Your task to perform on an android device: check google app version Image 0: 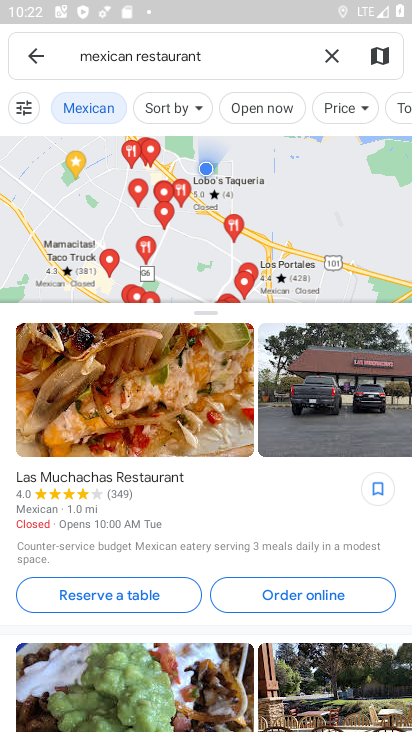
Step 0: click (41, 53)
Your task to perform on an android device: check google app version Image 1: 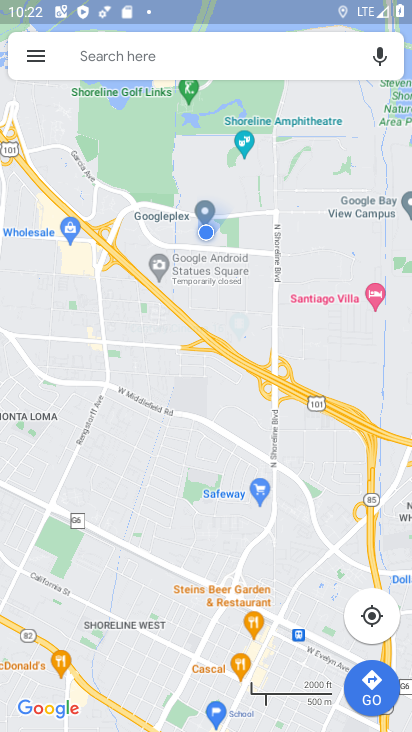
Step 1: press home button
Your task to perform on an android device: check google app version Image 2: 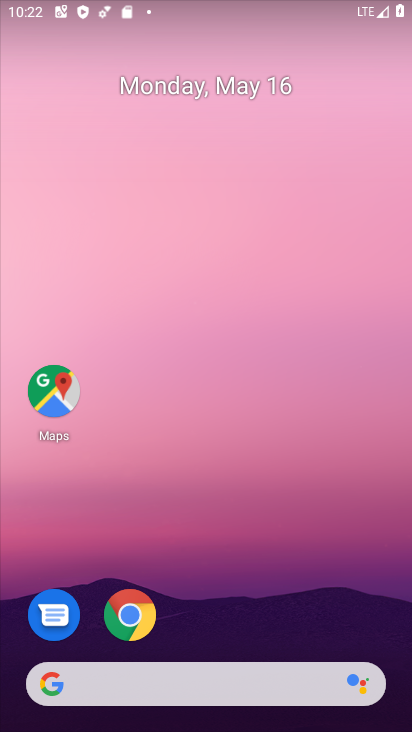
Step 2: drag from (240, 620) to (322, 2)
Your task to perform on an android device: check google app version Image 3: 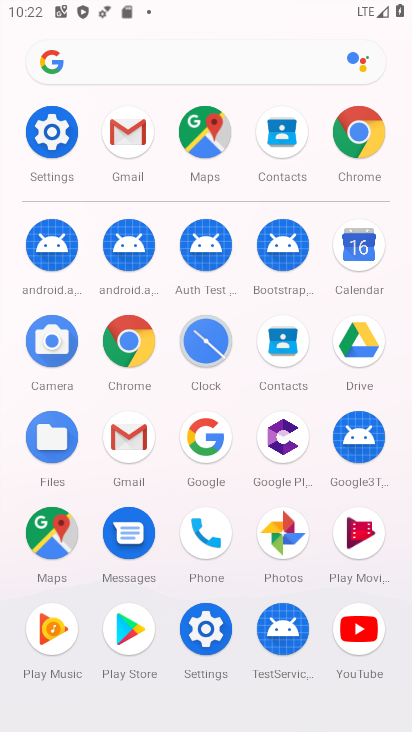
Step 3: click (215, 449)
Your task to perform on an android device: check google app version Image 4: 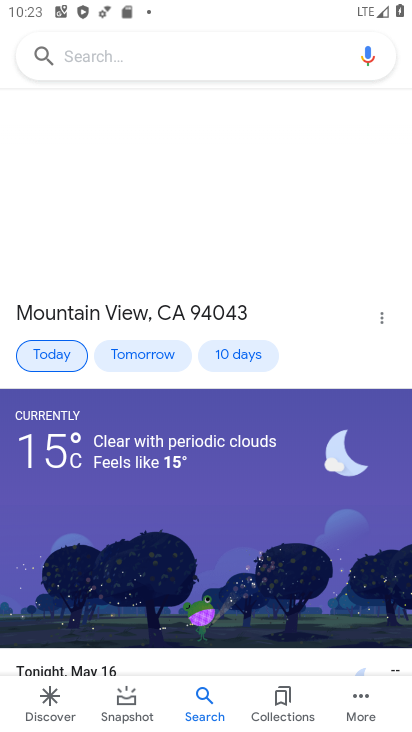
Step 4: click (366, 717)
Your task to perform on an android device: check google app version Image 5: 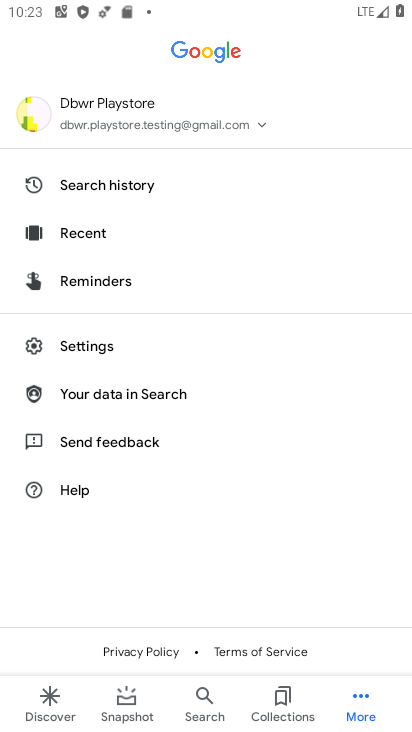
Step 5: click (93, 346)
Your task to perform on an android device: check google app version Image 6: 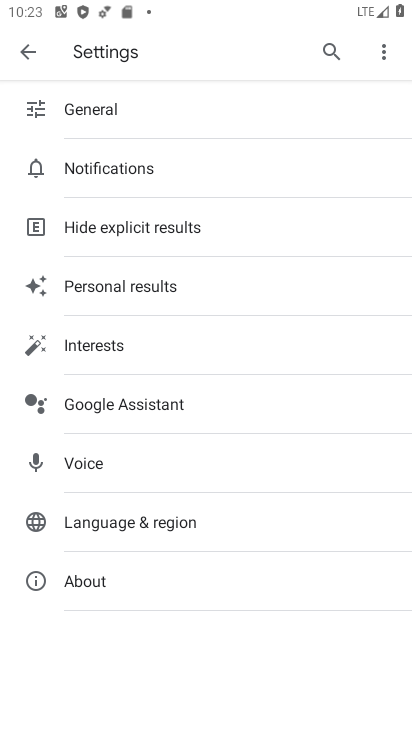
Step 6: click (178, 584)
Your task to perform on an android device: check google app version Image 7: 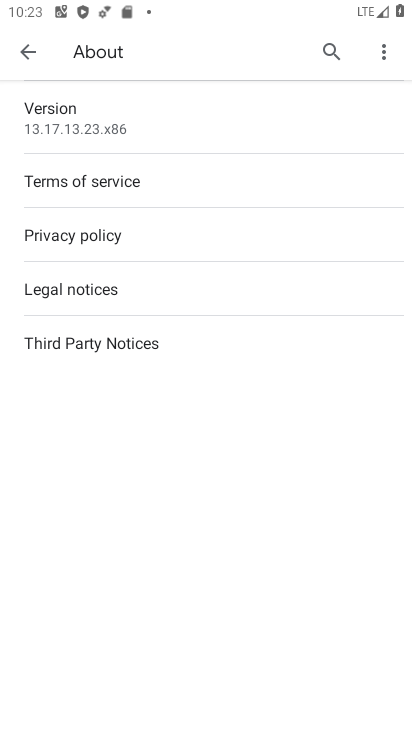
Step 7: click (145, 125)
Your task to perform on an android device: check google app version Image 8: 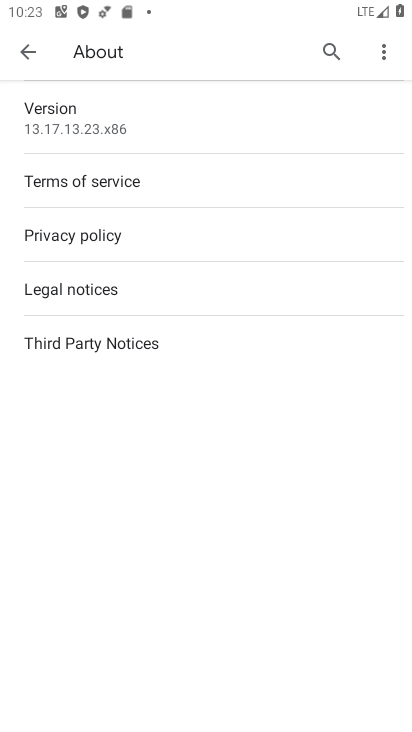
Step 8: task complete